Your task to perform on an android device: find snoozed emails in the gmail app Image 0: 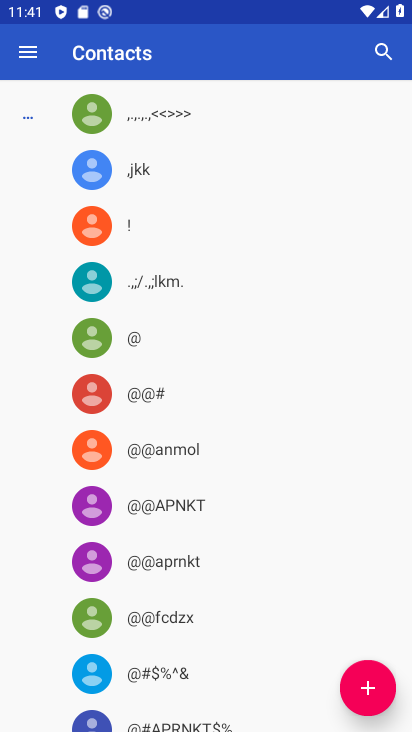
Step 0: press back button
Your task to perform on an android device: find snoozed emails in the gmail app Image 1: 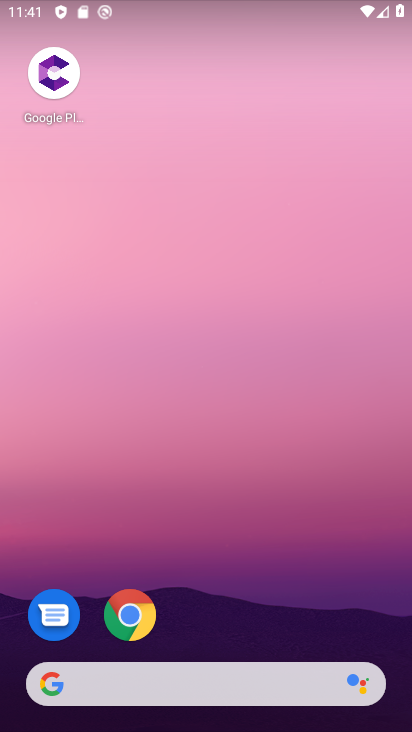
Step 1: drag from (276, 576) to (313, 83)
Your task to perform on an android device: find snoozed emails in the gmail app Image 2: 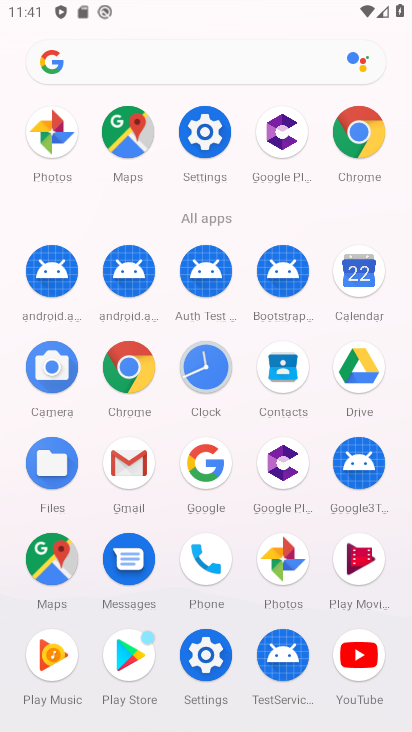
Step 2: click (128, 465)
Your task to perform on an android device: find snoozed emails in the gmail app Image 3: 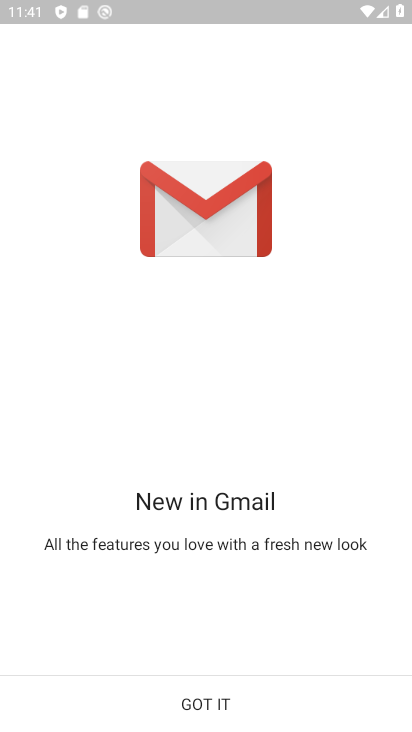
Step 3: click (221, 698)
Your task to perform on an android device: find snoozed emails in the gmail app Image 4: 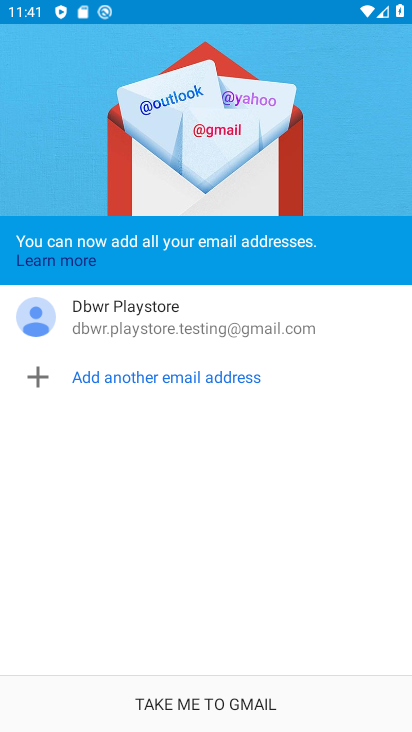
Step 4: click (187, 703)
Your task to perform on an android device: find snoozed emails in the gmail app Image 5: 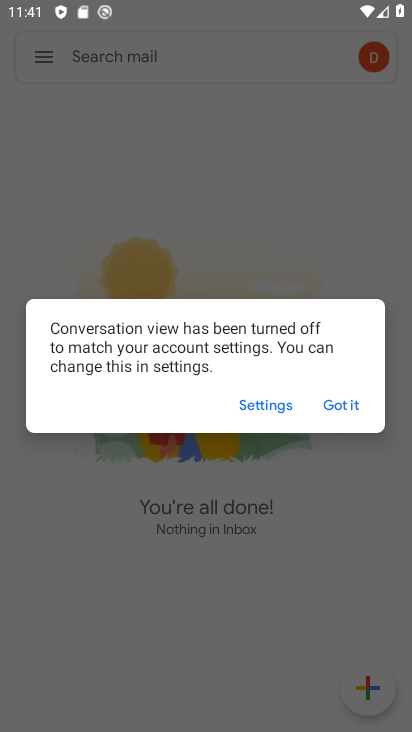
Step 5: click (334, 410)
Your task to perform on an android device: find snoozed emails in the gmail app Image 6: 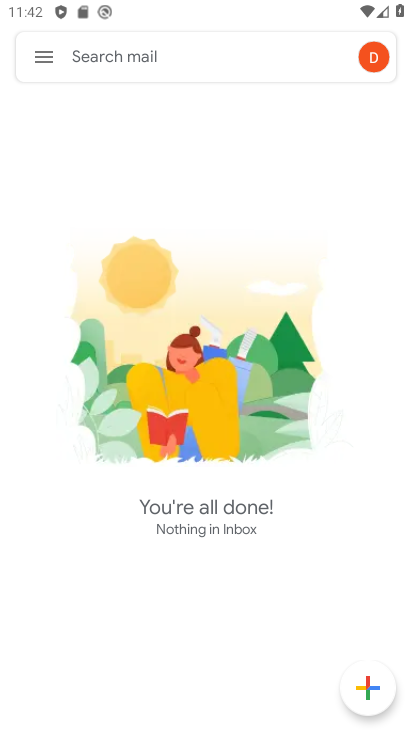
Step 6: click (45, 50)
Your task to perform on an android device: find snoozed emails in the gmail app Image 7: 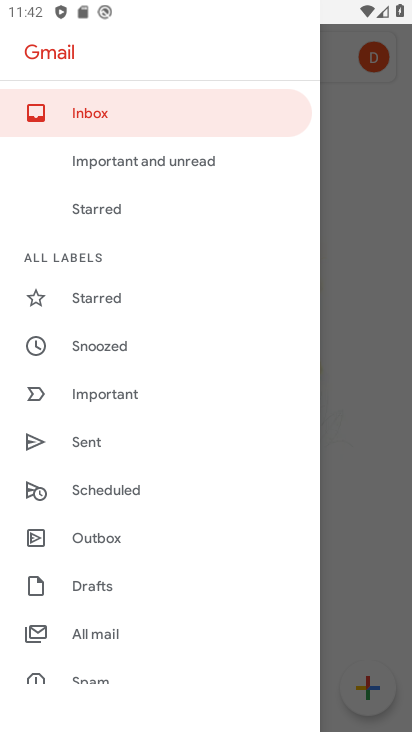
Step 7: click (101, 347)
Your task to perform on an android device: find snoozed emails in the gmail app Image 8: 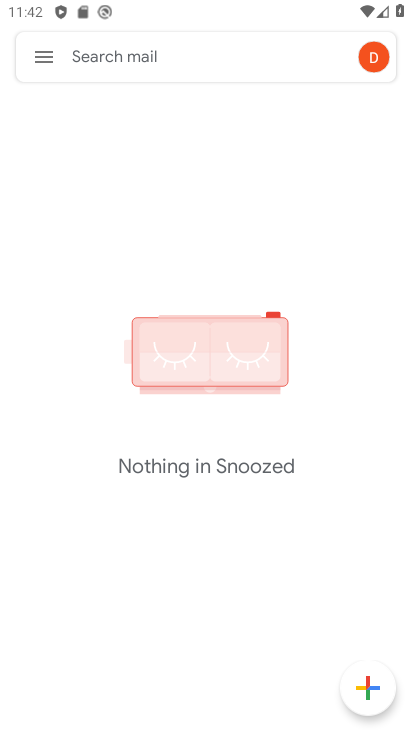
Step 8: task complete